Your task to perform on an android device: Go to Yahoo.com Image 0: 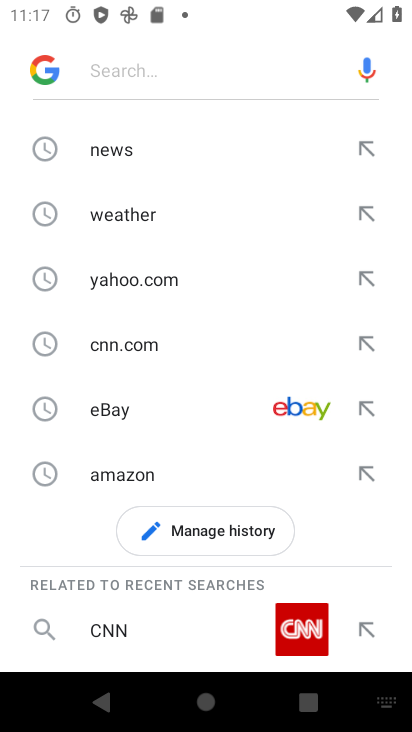
Step 0: click (136, 277)
Your task to perform on an android device: Go to Yahoo.com Image 1: 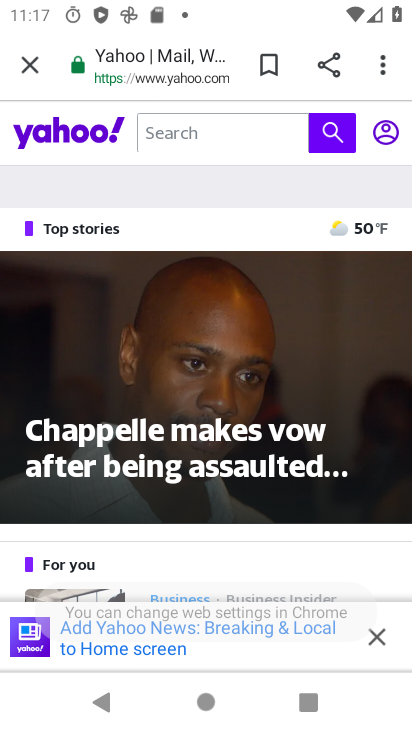
Step 1: task complete